Your task to perform on an android device: Open Google Chrome and open the bookmarks view Image 0: 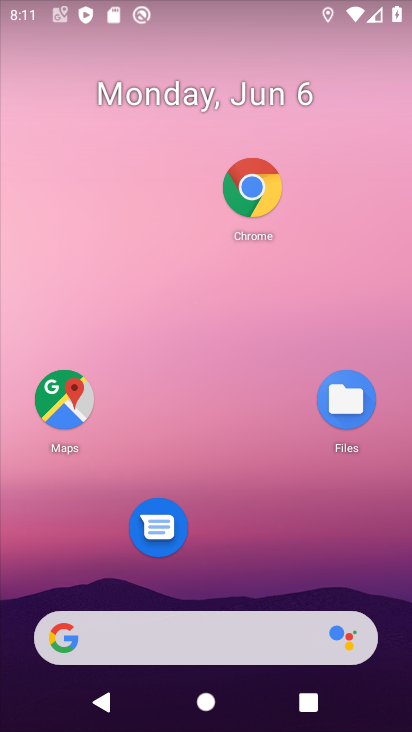
Step 0: click (255, 196)
Your task to perform on an android device: Open Google Chrome and open the bookmarks view Image 1: 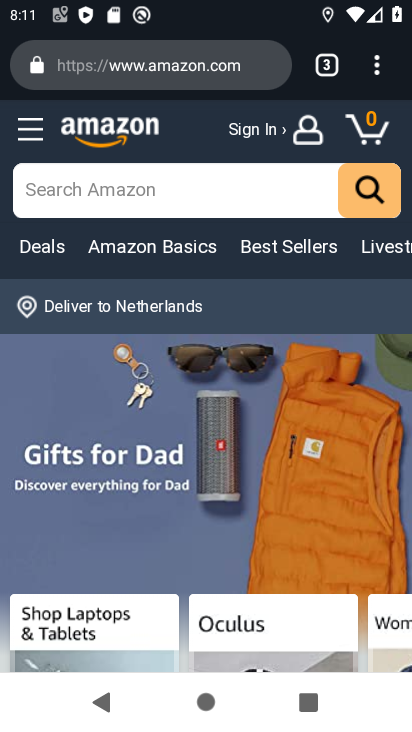
Step 1: click (370, 68)
Your task to perform on an android device: Open Google Chrome and open the bookmarks view Image 2: 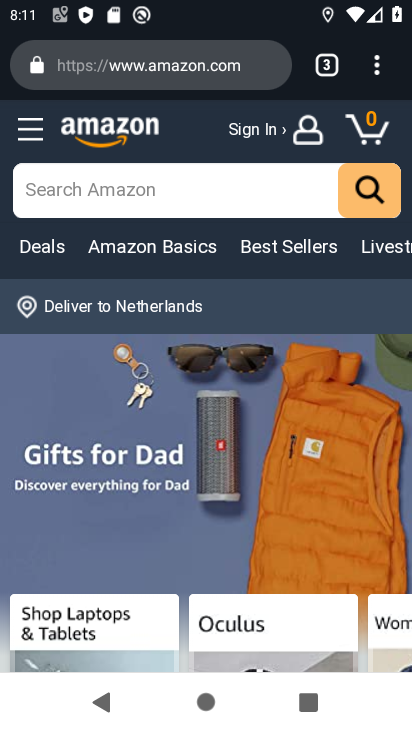
Step 2: click (366, 62)
Your task to perform on an android device: Open Google Chrome and open the bookmarks view Image 3: 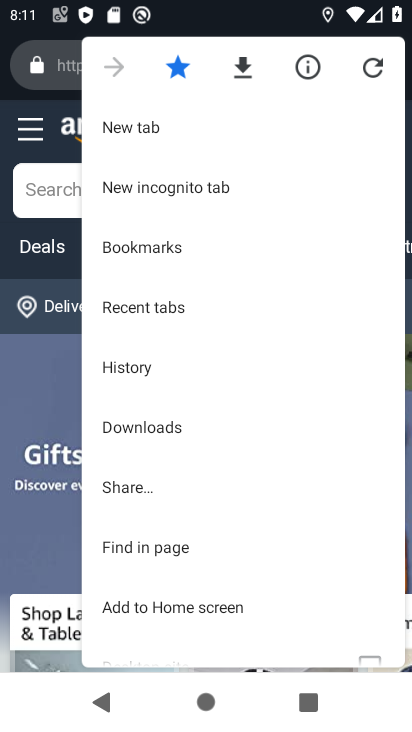
Step 3: click (123, 234)
Your task to perform on an android device: Open Google Chrome and open the bookmarks view Image 4: 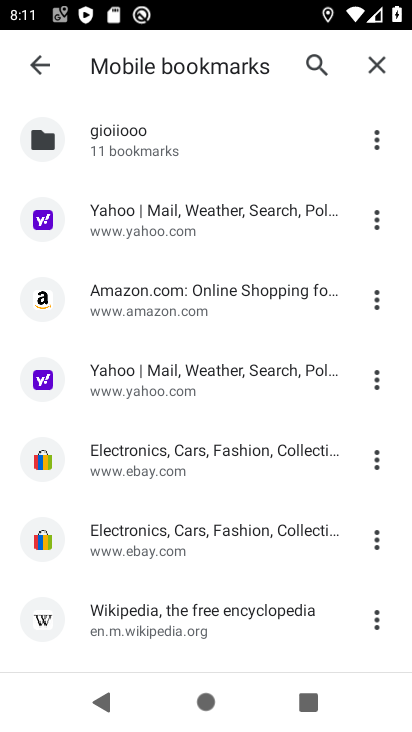
Step 4: click (138, 223)
Your task to perform on an android device: Open Google Chrome and open the bookmarks view Image 5: 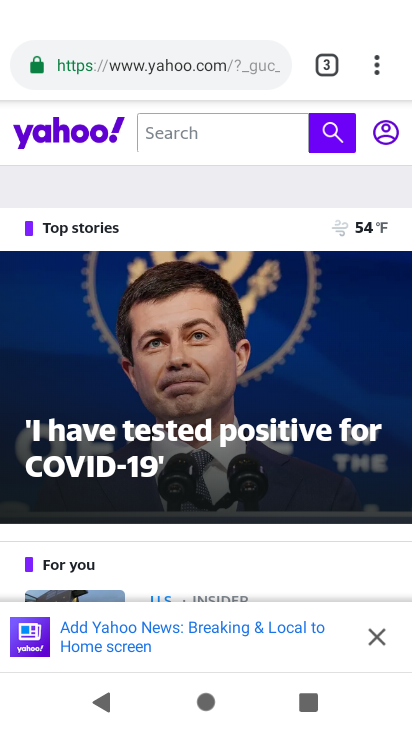
Step 5: task complete